Your task to perform on an android device: turn on wifi Image 0: 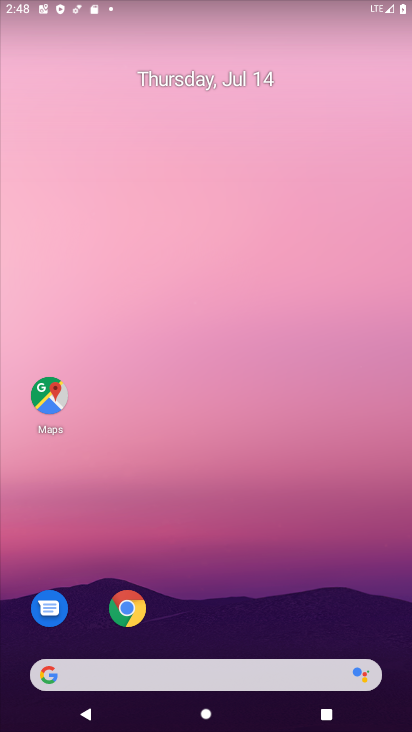
Step 0: drag from (320, 5) to (270, 403)
Your task to perform on an android device: turn on wifi Image 1: 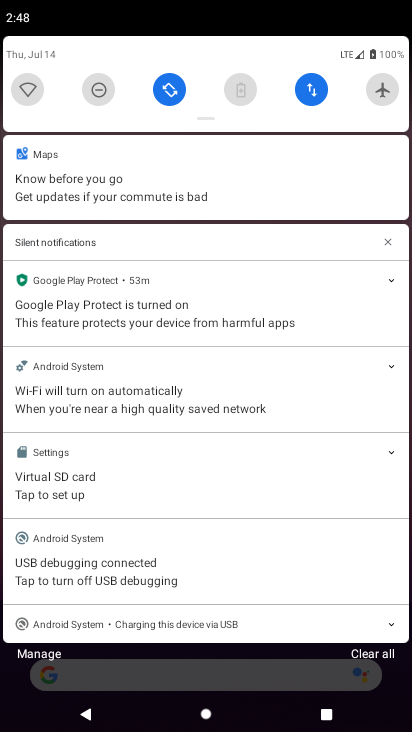
Step 1: click (25, 95)
Your task to perform on an android device: turn on wifi Image 2: 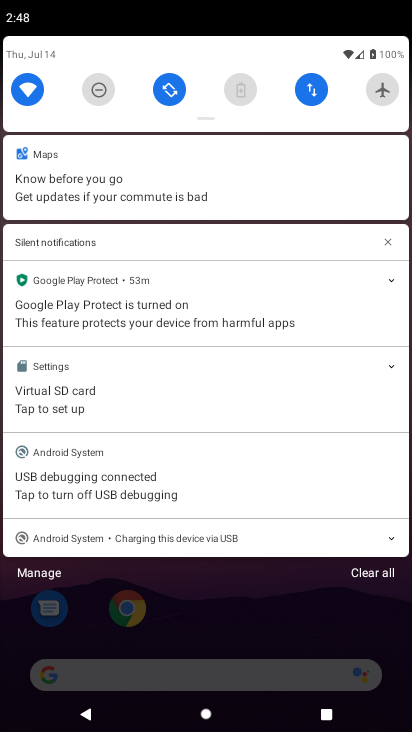
Step 2: task complete